Your task to perform on an android device: delete the emails in spam in the gmail app Image 0: 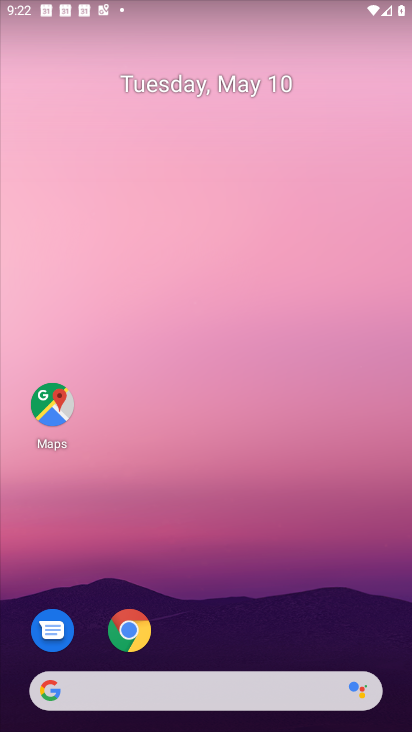
Step 0: drag from (245, 696) to (221, 47)
Your task to perform on an android device: delete the emails in spam in the gmail app Image 1: 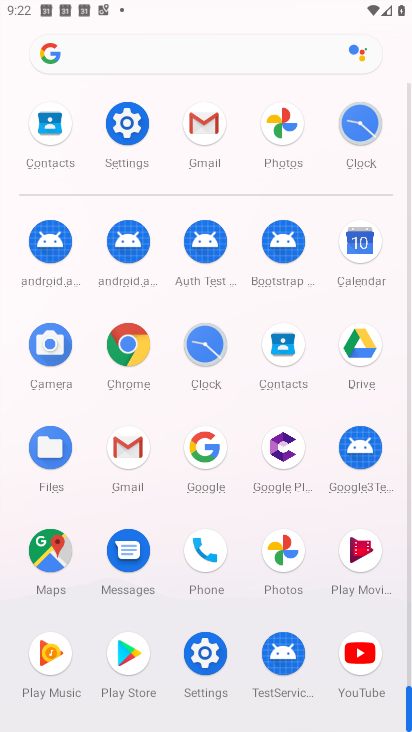
Step 1: click (205, 130)
Your task to perform on an android device: delete the emails in spam in the gmail app Image 2: 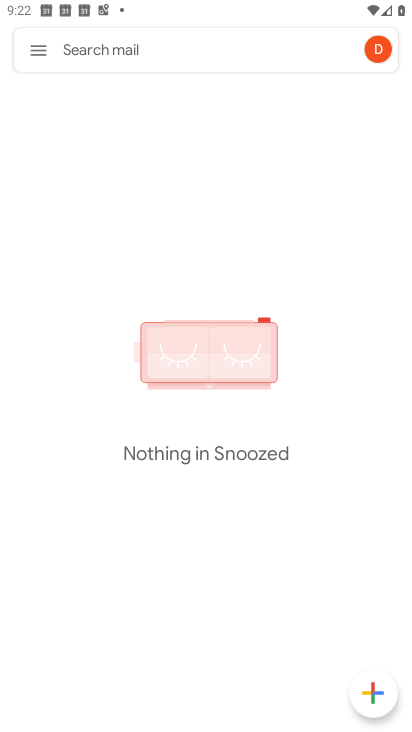
Step 2: click (36, 55)
Your task to perform on an android device: delete the emails in spam in the gmail app Image 3: 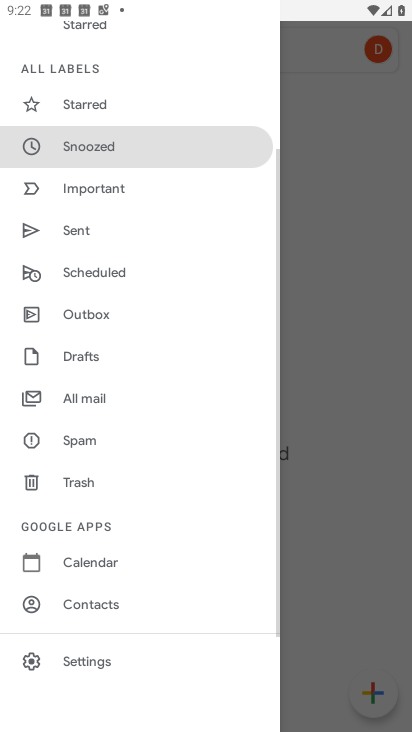
Step 3: click (111, 446)
Your task to perform on an android device: delete the emails in spam in the gmail app Image 4: 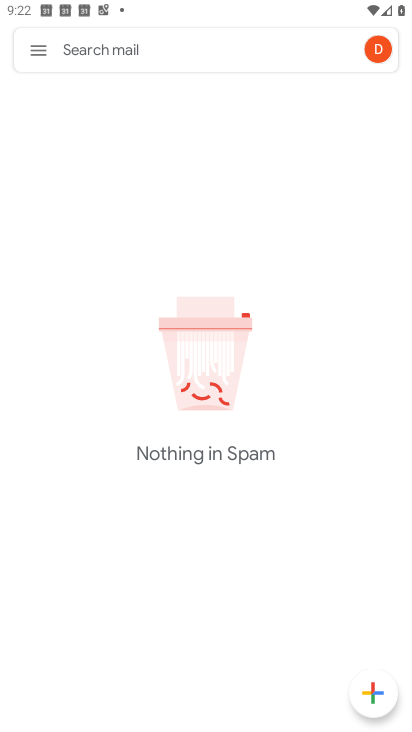
Step 4: task complete